Your task to perform on an android device: change the clock display to digital Image 0: 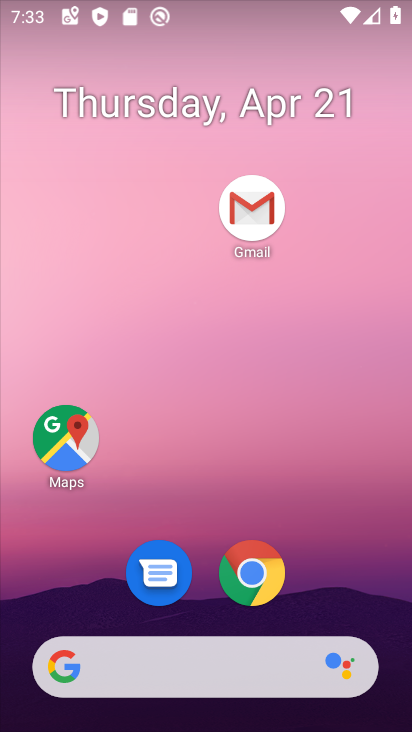
Step 0: drag from (301, 530) to (332, 90)
Your task to perform on an android device: change the clock display to digital Image 1: 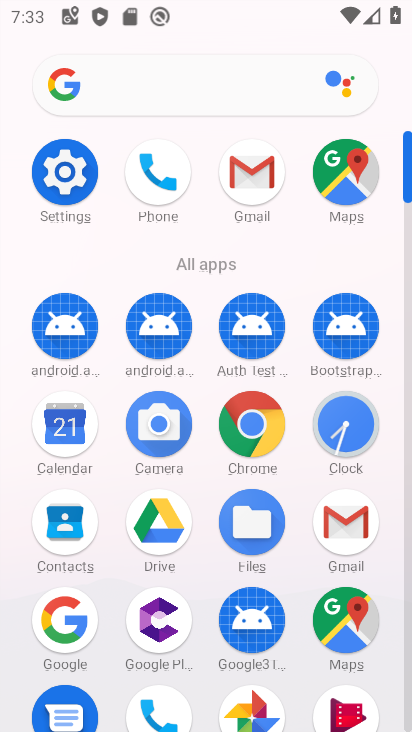
Step 1: click (344, 416)
Your task to perform on an android device: change the clock display to digital Image 2: 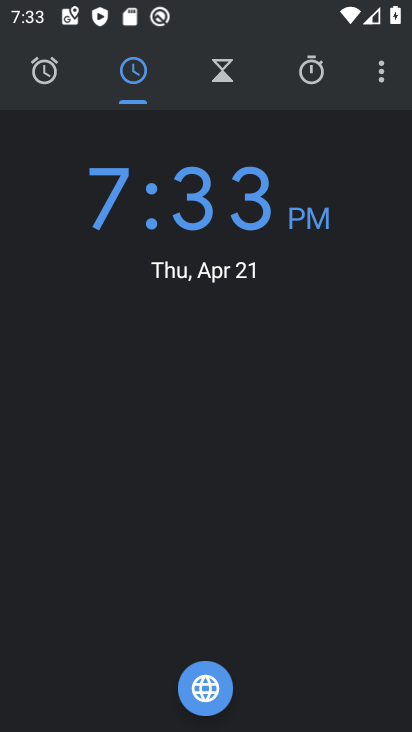
Step 2: click (384, 69)
Your task to perform on an android device: change the clock display to digital Image 3: 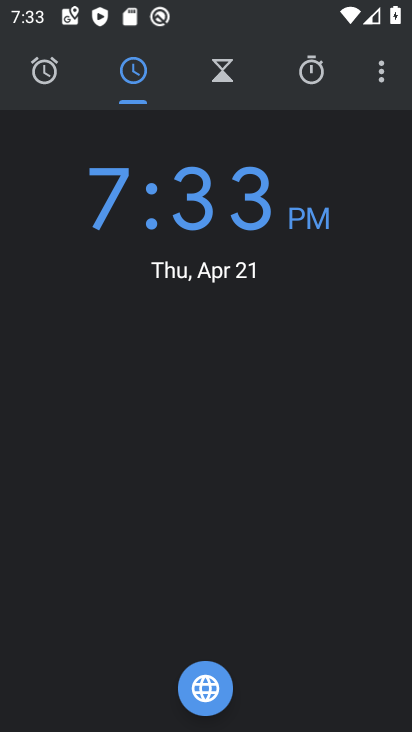
Step 3: click (385, 76)
Your task to perform on an android device: change the clock display to digital Image 4: 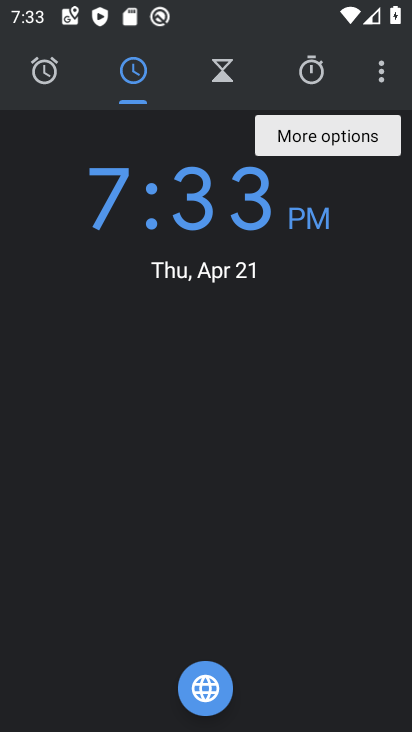
Step 4: click (351, 153)
Your task to perform on an android device: change the clock display to digital Image 5: 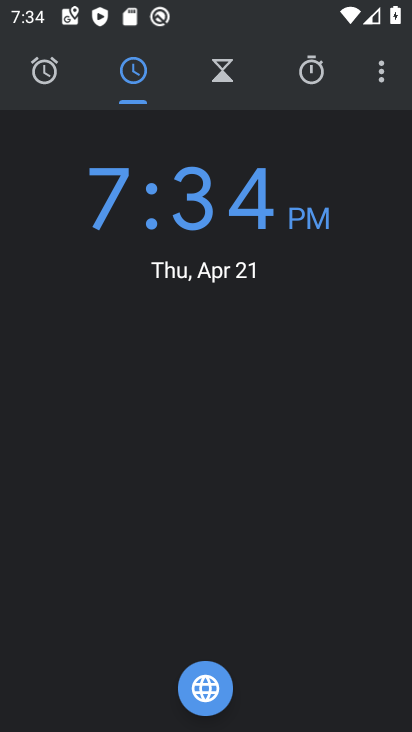
Step 5: click (377, 74)
Your task to perform on an android device: change the clock display to digital Image 6: 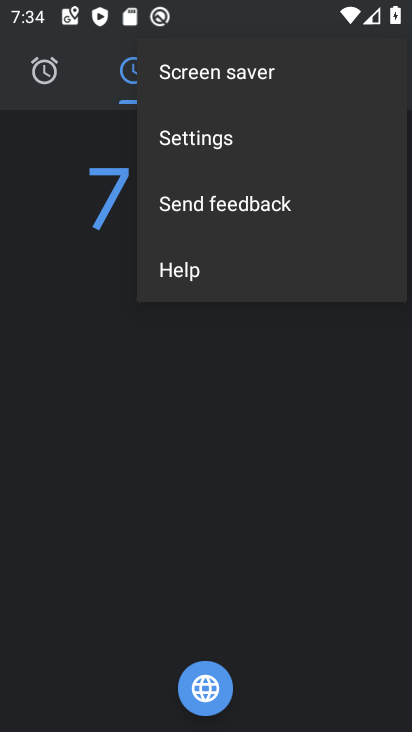
Step 6: click (206, 148)
Your task to perform on an android device: change the clock display to digital Image 7: 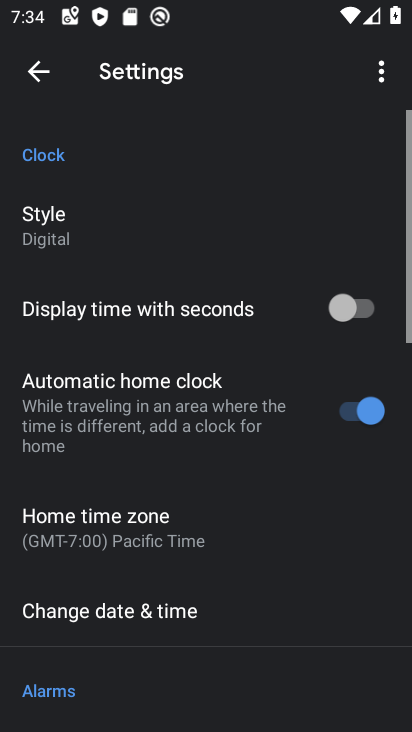
Step 7: click (58, 231)
Your task to perform on an android device: change the clock display to digital Image 8: 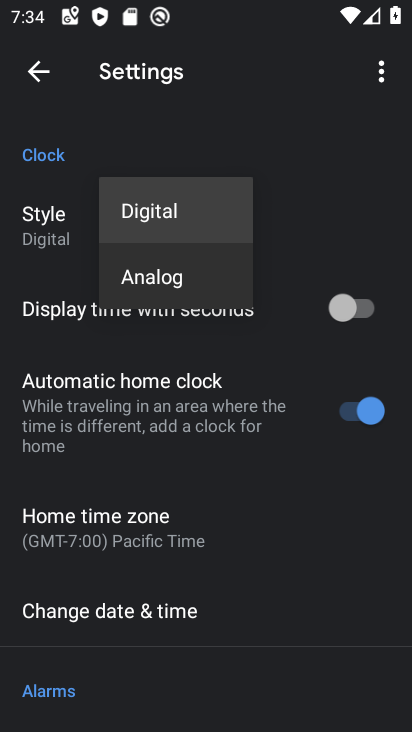
Step 8: click (290, 218)
Your task to perform on an android device: change the clock display to digital Image 9: 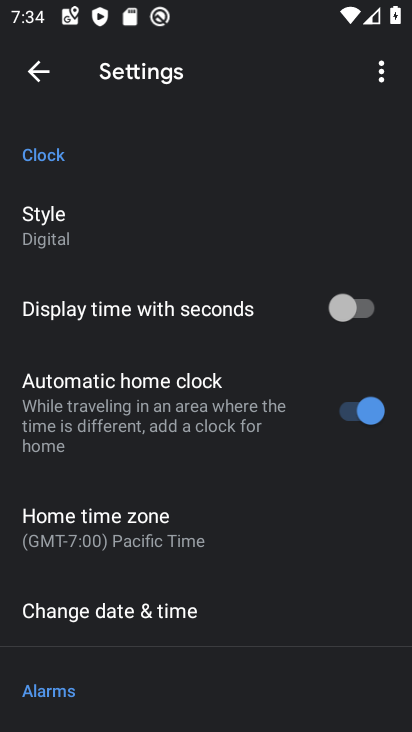
Step 9: task complete